Your task to perform on an android device: open app "Adobe Acrobat Reader: Edit PDF" (install if not already installed) and go to login screen Image 0: 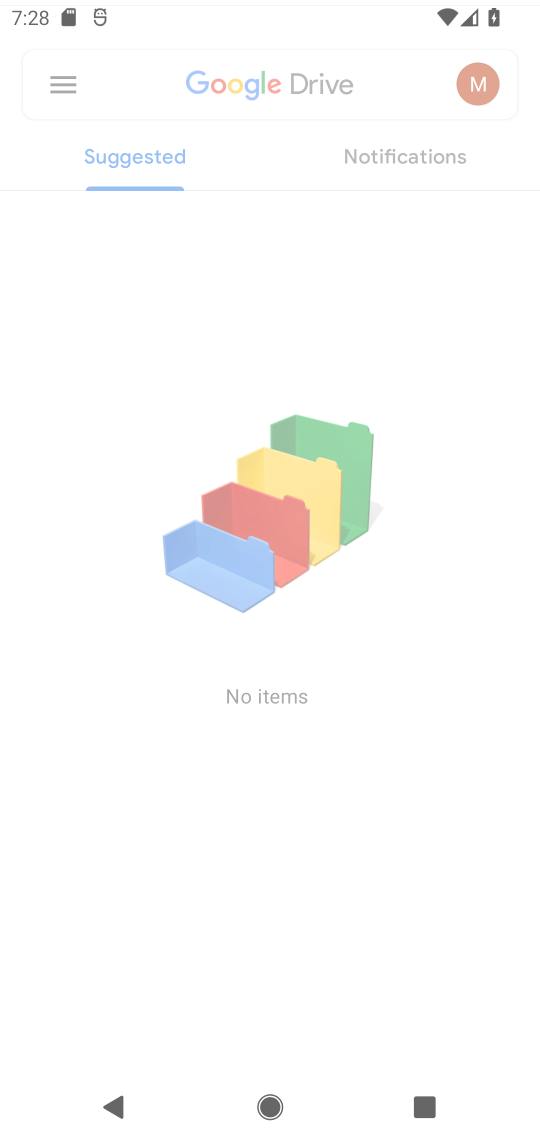
Step 0: drag from (294, 947) to (305, 321)
Your task to perform on an android device: open app "Adobe Acrobat Reader: Edit PDF" (install if not already installed) and go to login screen Image 1: 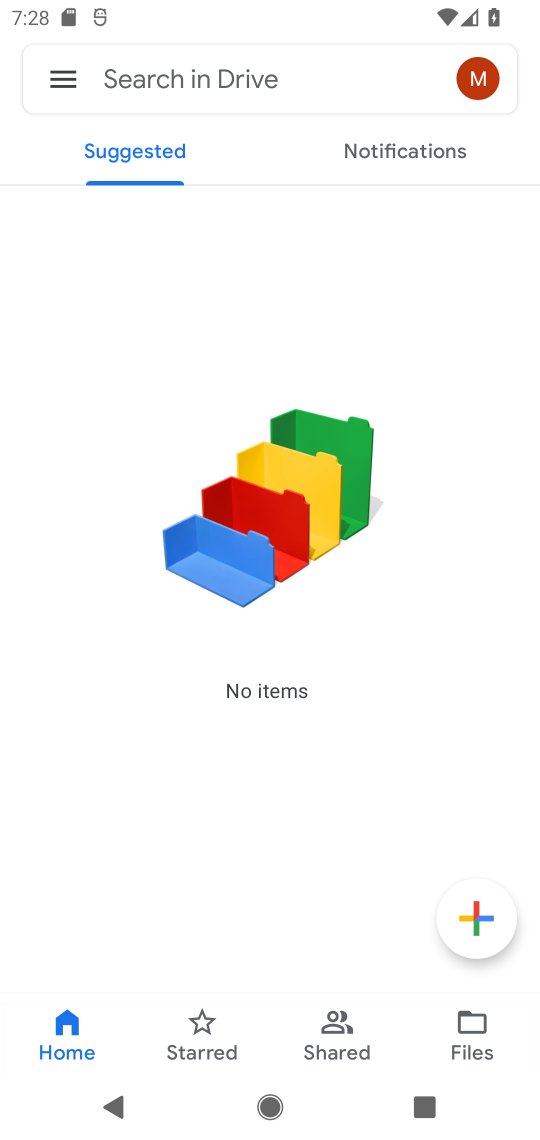
Step 1: press home button
Your task to perform on an android device: open app "Adobe Acrobat Reader: Edit PDF" (install if not already installed) and go to login screen Image 2: 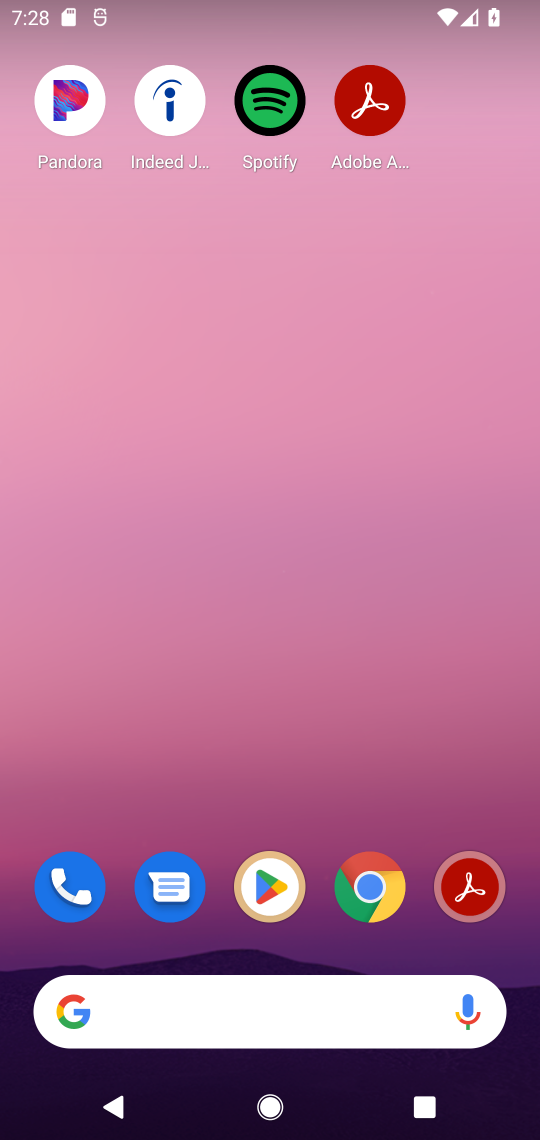
Step 2: drag from (302, 957) to (302, 199)
Your task to perform on an android device: open app "Adobe Acrobat Reader: Edit PDF" (install if not already installed) and go to login screen Image 3: 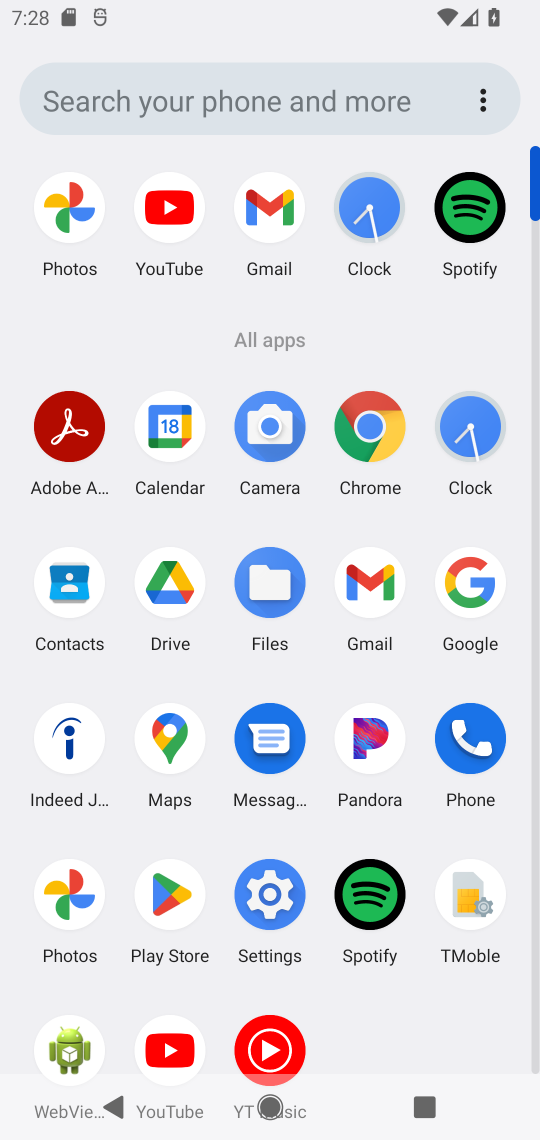
Step 3: click (147, 871)
Your task to perform on an android device: open app "Adobe Acrobat Reader: Edit PDF" (install if not already installed) and go to login screen Image 4: 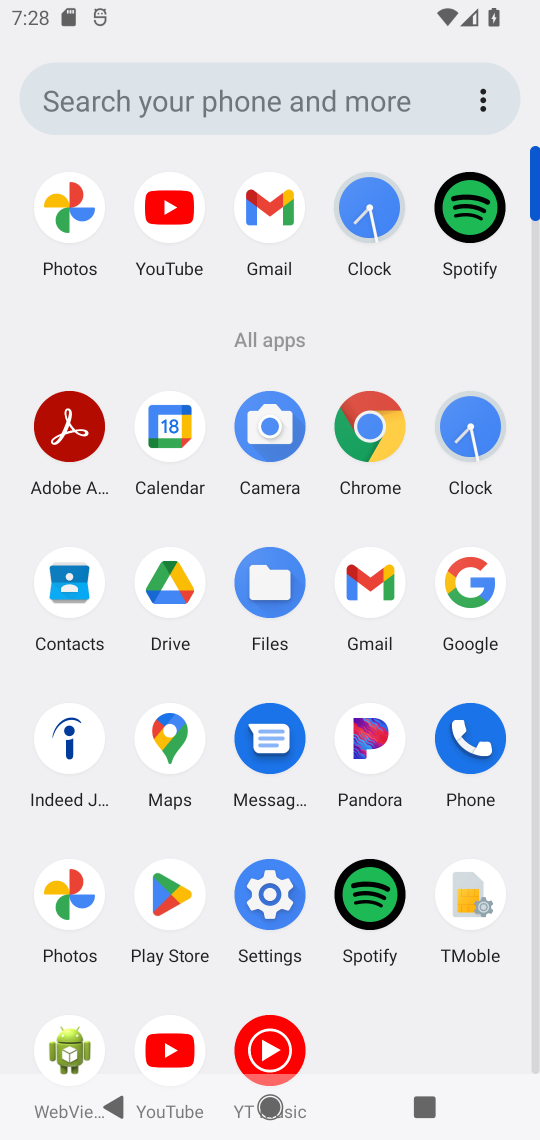
Step 4: click (147, 870)
Your task to perform on an android device: open app "Adobe Acrobat Reader: Edit PDF" (install if not already installed) and go to login screen Image 5: 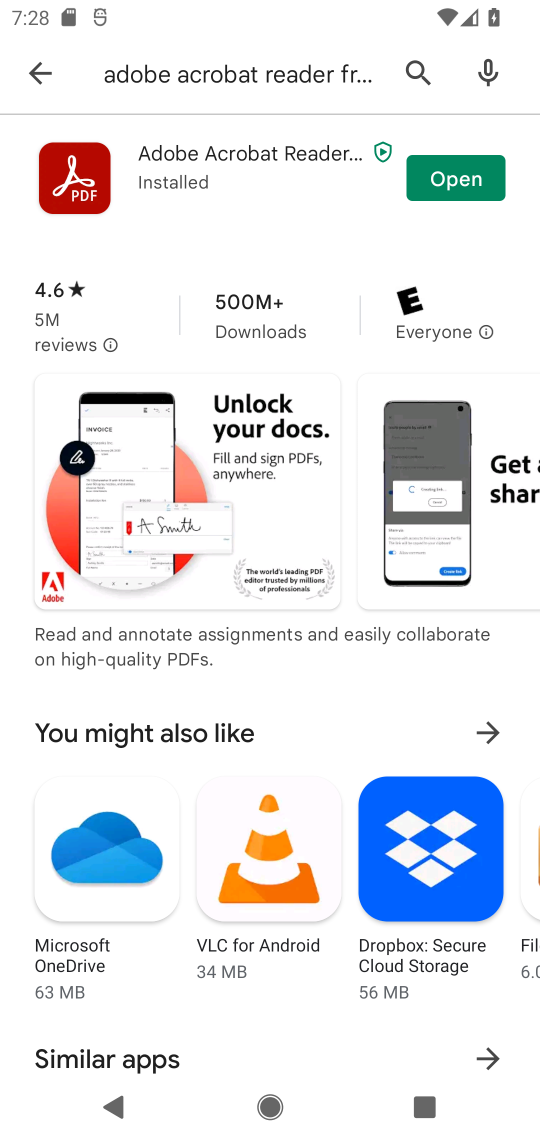
Step 5: click (408, 68)
Your task to perform on an android device: open app "Adobe Acrobat Reader: Edit PDF" (install if not already installed) and go to login screen Image 6: 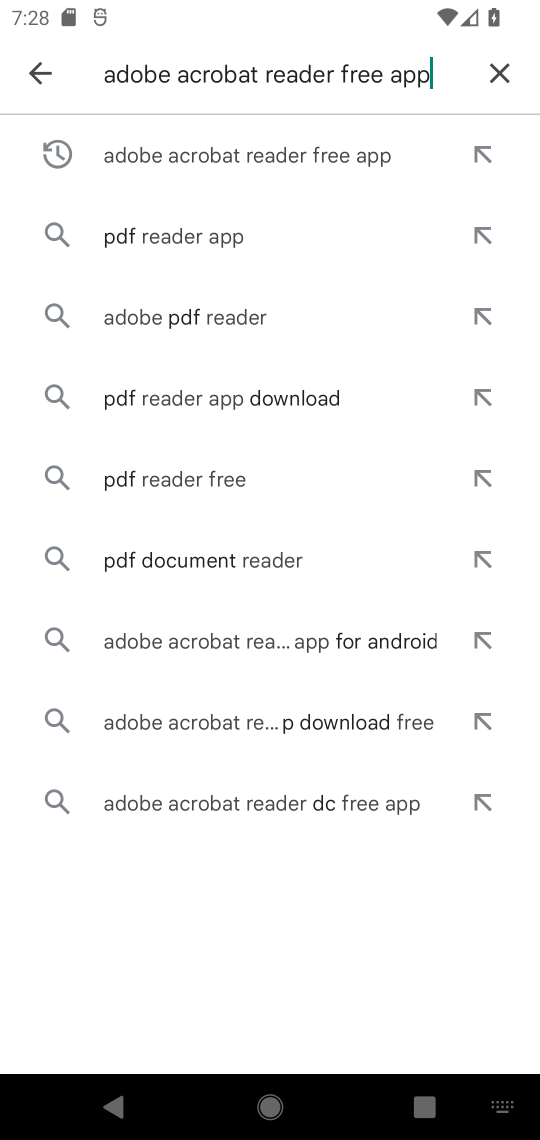
Step 6: click (501, 65)
Your task to perform on an android device: open app "Adobe Acrobat Reader: Edit PDF" (install if not already installed) and go to login screen Image 7: 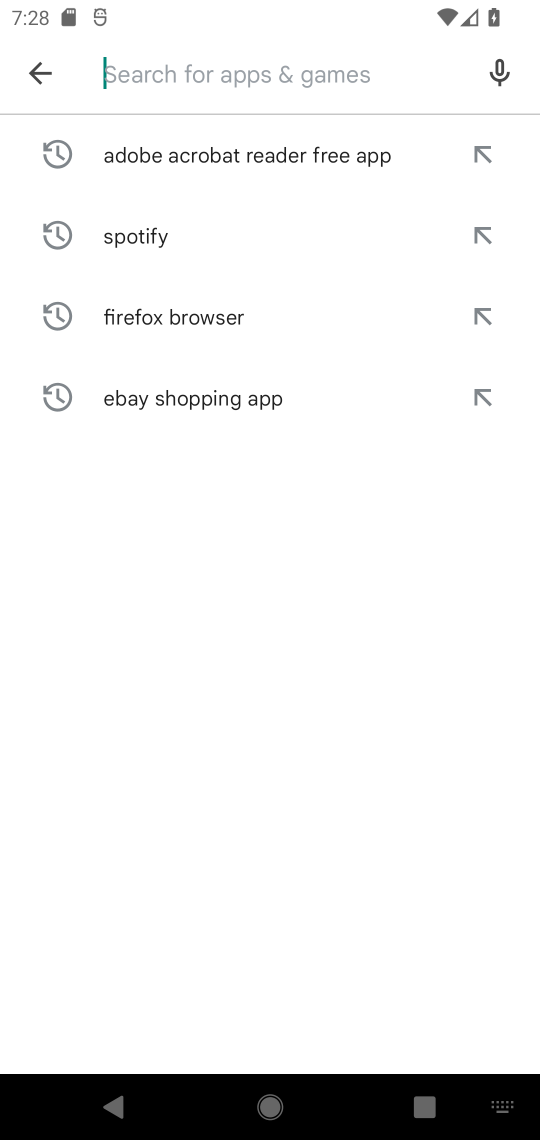
Step 7: type ""Adobe Acrobat Reader: Edit PD"
Your task to perform on an android device: open app "Adobe Acrobat Reader: Edit PDF" (install if not already installed) and go to login screen Image 8: 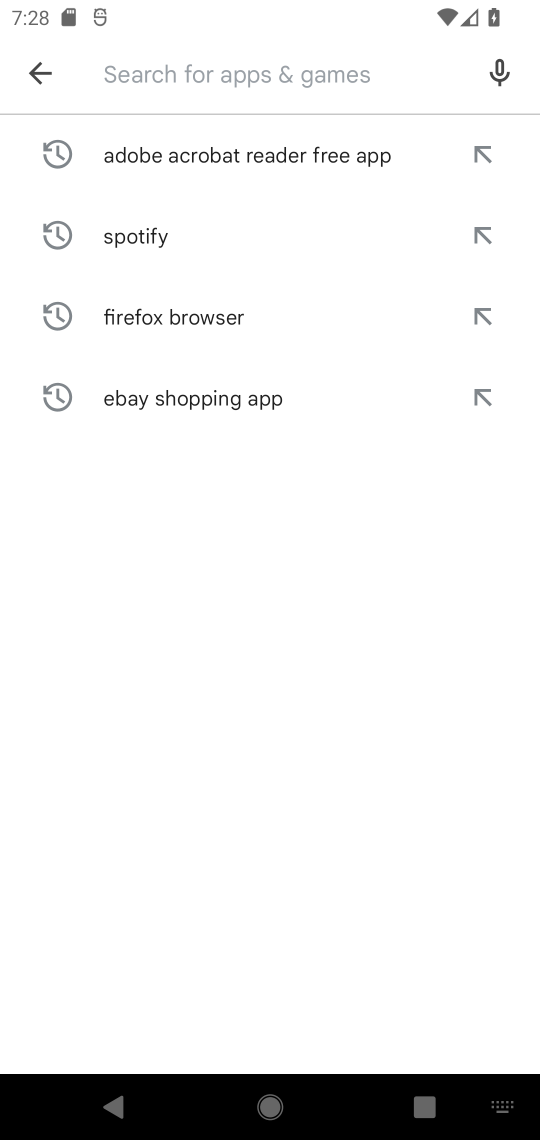
Step 8: type ""
Your task to perform on an android device: open app "Adobe Acrobat Reader: Edit PDF" (install if not already installed) and go to login screen Image 9: 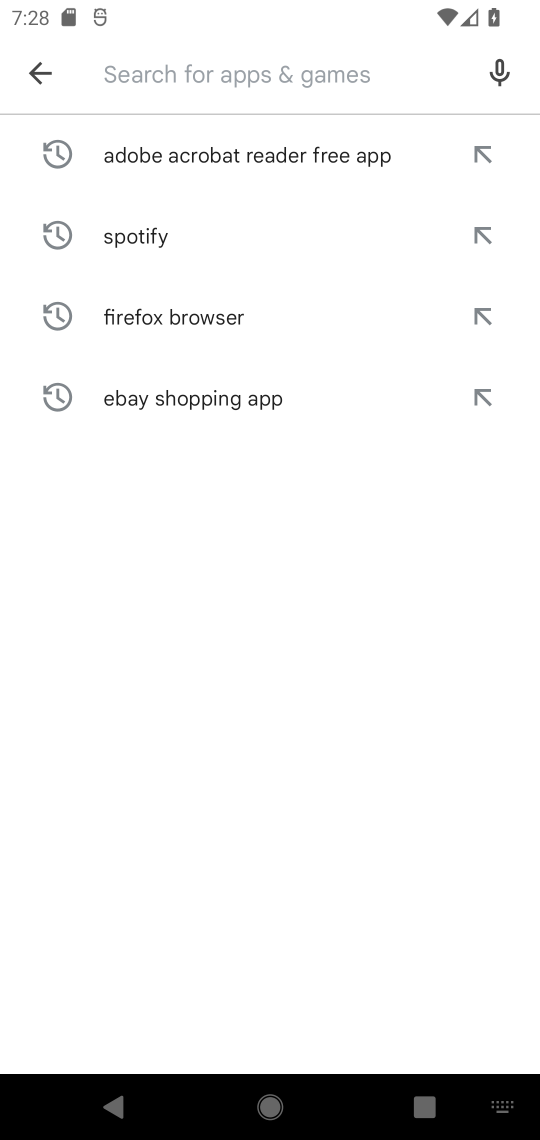
Step 9: click (199, 152)
Your task to perform on an android device: open app "Adobe Acrobat Reader: Edit PDF" (install if not already installed) and go to login screen Image 10: 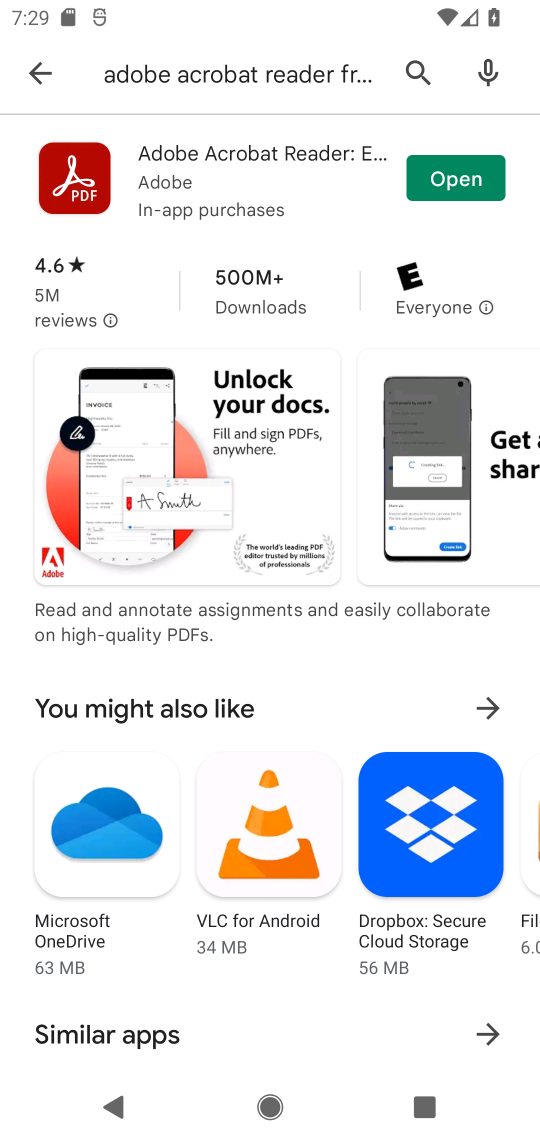
Step 10: click (462, 180)
Your task to perform on an android device: open app "Adobe Acrobat Reader: Edit PDF" (install if not already installed) and go to login screen Image 11: 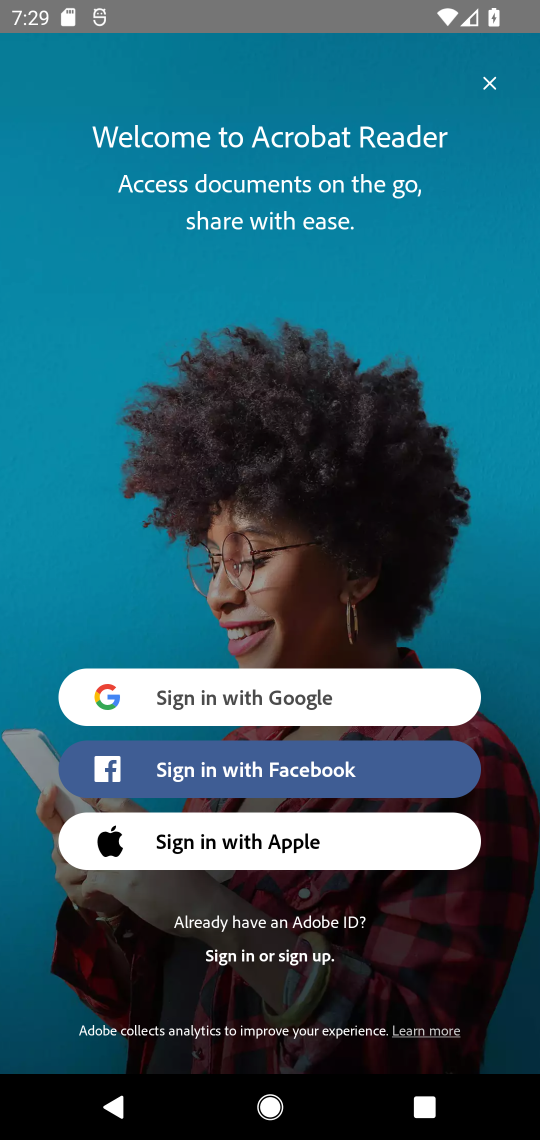
Step 11: task complete